Your task to perform on an android device: toggle notification dots Image 0: 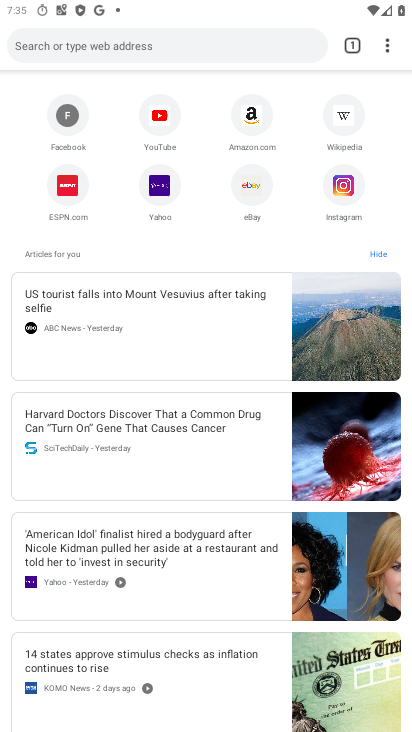
Step 0: press home button
Your task to perform on an android device: toggle notification dots Image 1: 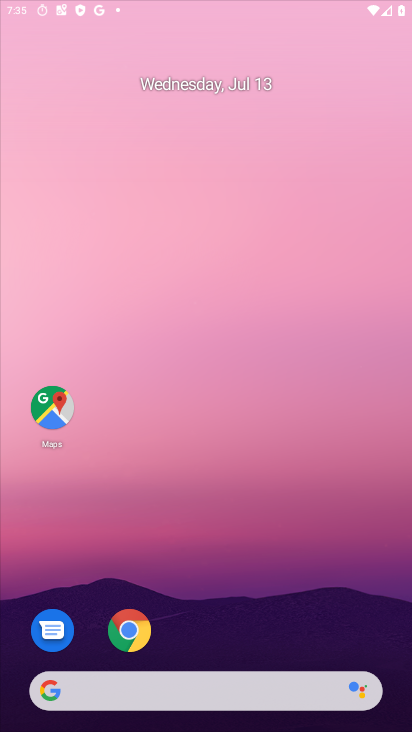
Step 1: drag from (291, 704) to (207, 1)
Your task to perform on an android device: toggle notification dots Image 2: 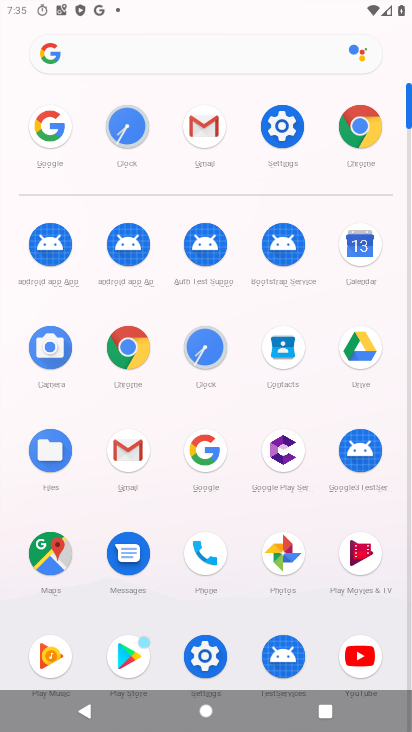
Step 2: click (284, 124)
Your task to perform on an android device: toggle notification dots Image 3: 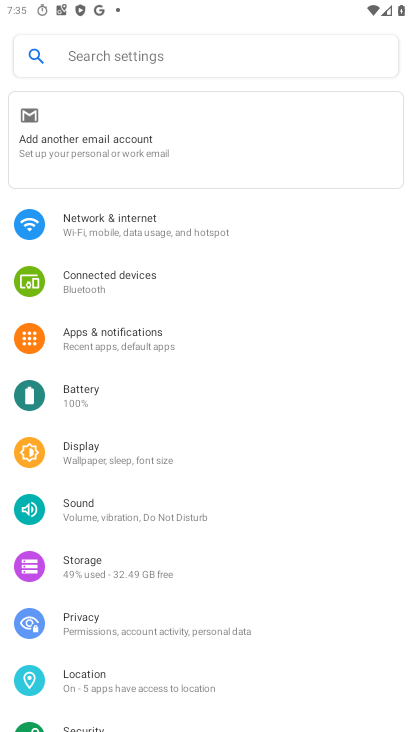
Step 3: click (104, 365)
Your task to perform on an android device: toggle notification dots Image 4: 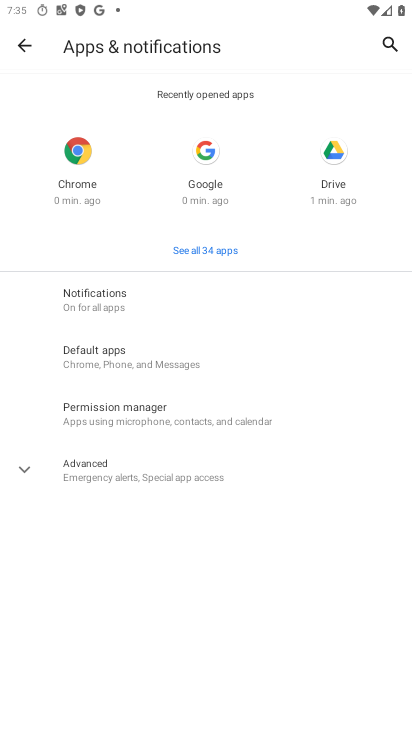
Step 4: click (113, 305)
Your task to perform on an android device: toggle notification dots Image 5: 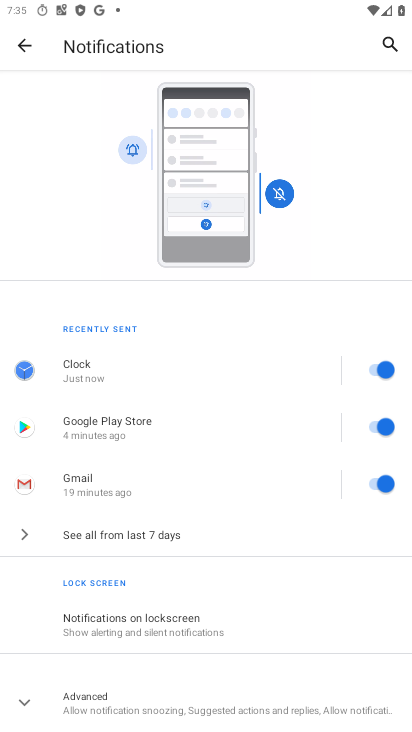
Step 5: click (91, 712)
Your task to perform on an android device: toggle notification dots Image 6: 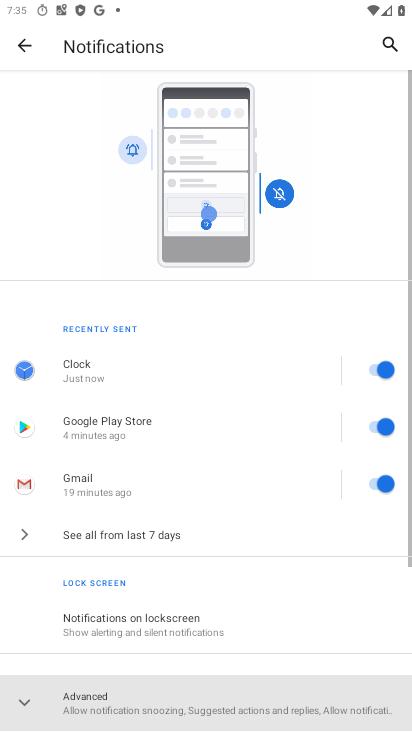
Step 6: drag from (95, 704) to (163, 159)
Your task to perform on an android device: toggle notification dots Image 7: 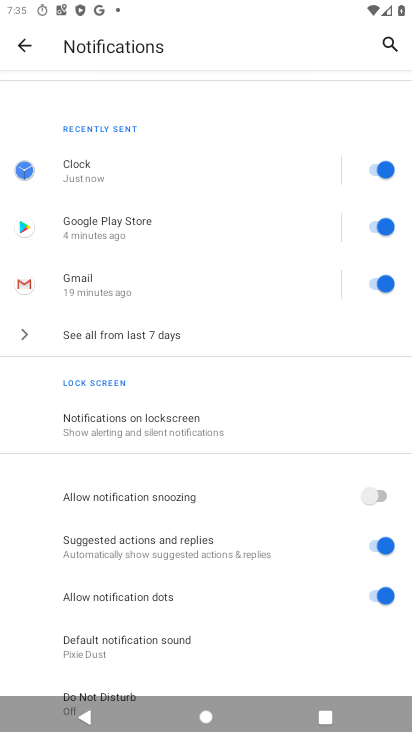
Step 7: click (257, 604)
Your task to perform on an android device: toggle notification dots Image 8: 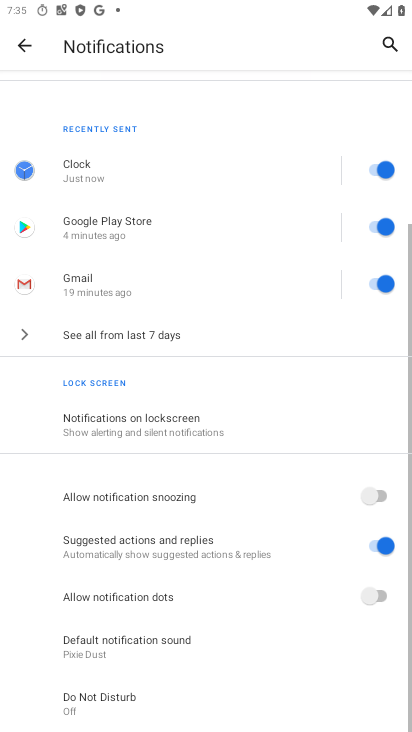
Step 8: task complete